Your task to perform on an android device: Open the map Image 0: 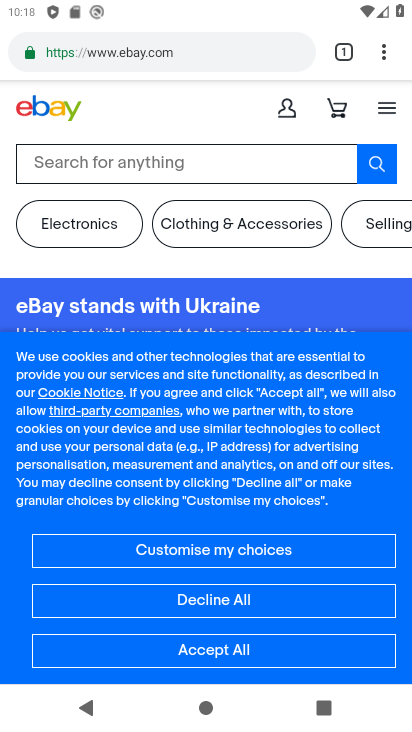
Step 0: press home button
Your task to perform on an android device: Open the map Image 1: 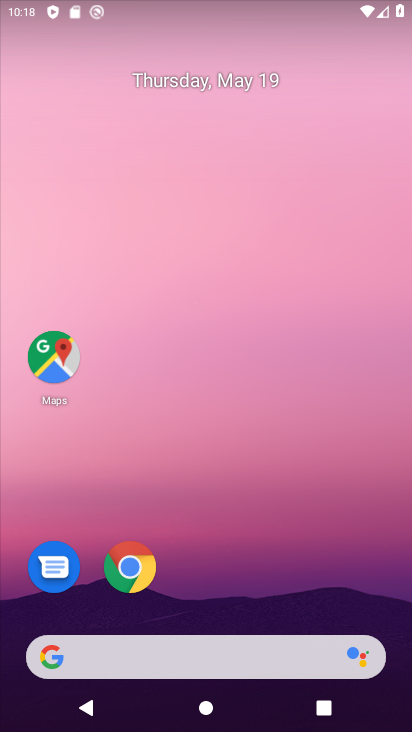
Step 1: click (54, 349)
Your task to perform on an android device: Open the map Image 2: 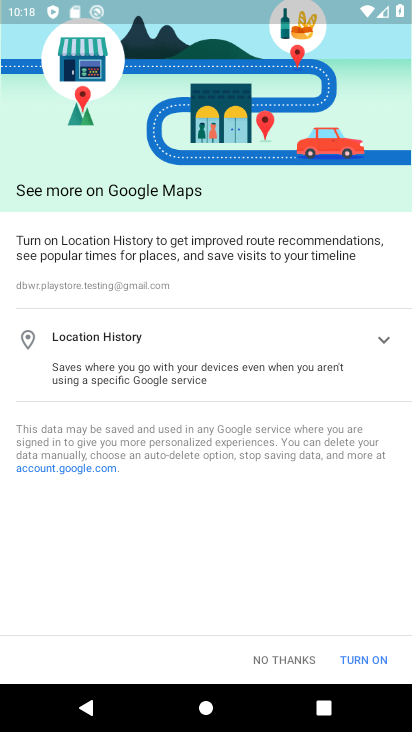
Step 2: click (287, 656)
Your task to perform on an android device: Open the map Image 3: 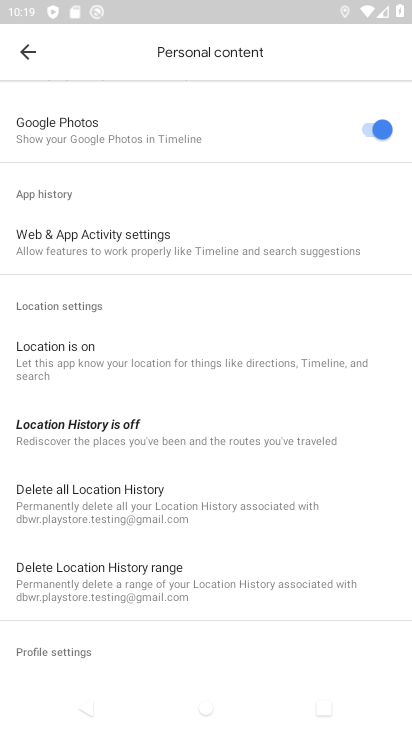
Step 3: task complete